Your task to perform on an android device: refresh tabs in the chrome app Image 0: 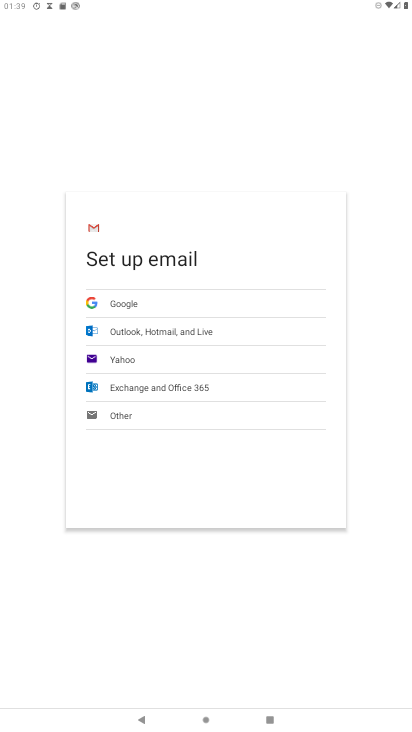
Step 0: press home button
Your task to perform on an android device: refresh tabs in the chrome app Image 1: 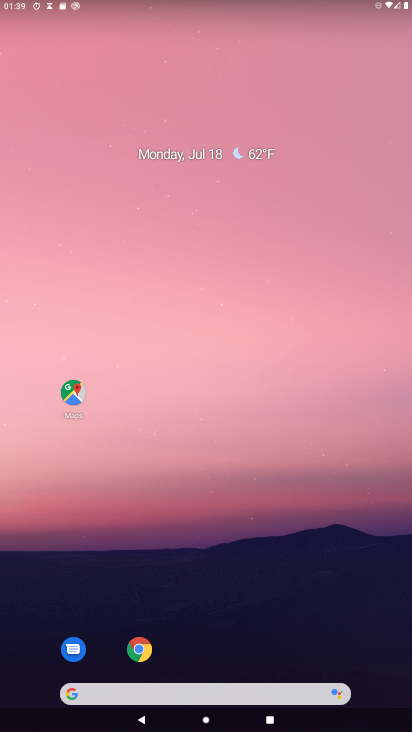
Step 1: click (146, 644)
Your task to perform on an android device: refresh tabs in the chrome app Image 2: 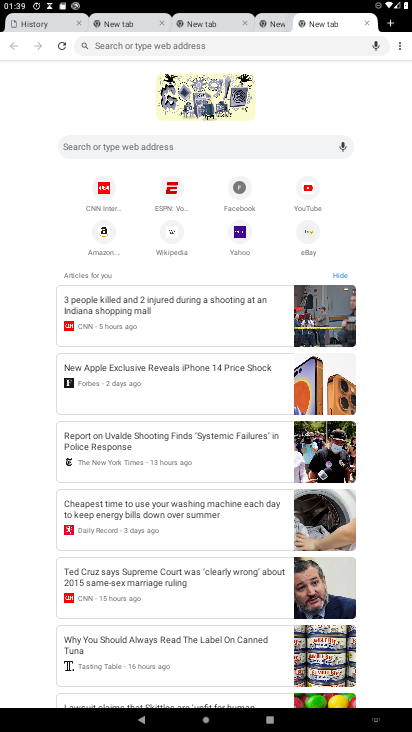
Step 2: click (397, 45)
Your task to perform on an android device: refresh tabs in the chrome app Image 3: 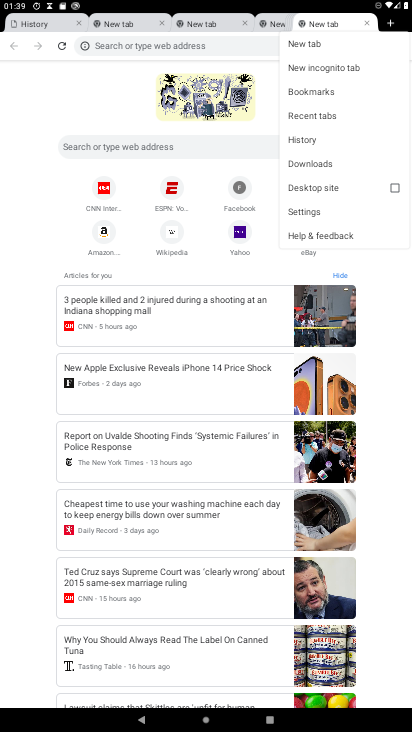
Step 3: click (308, 46)
Your task to perform on an android device: refresh tabs in the chrome app Image 4: 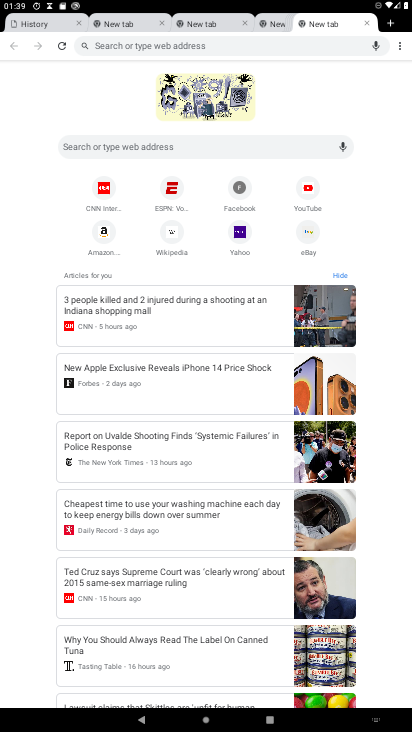
Step 4: task complete